Your task to perform on an android device: add a contact in the contacts app Image 0: 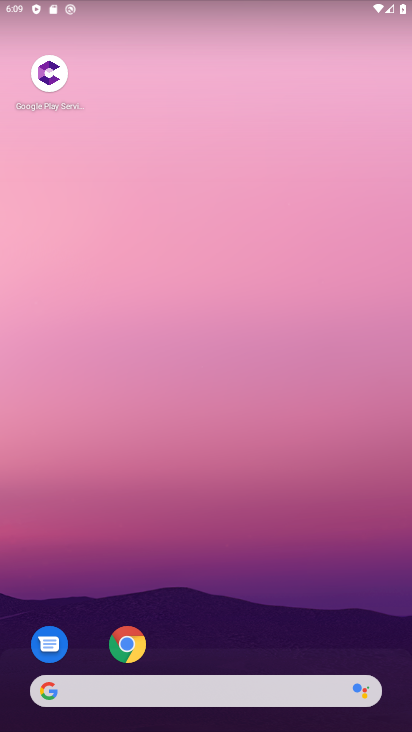
Step 0: drag from (269, 643) to (368, 192)
Your task to perform on an android device: add a contact in the contacts app Image 1: 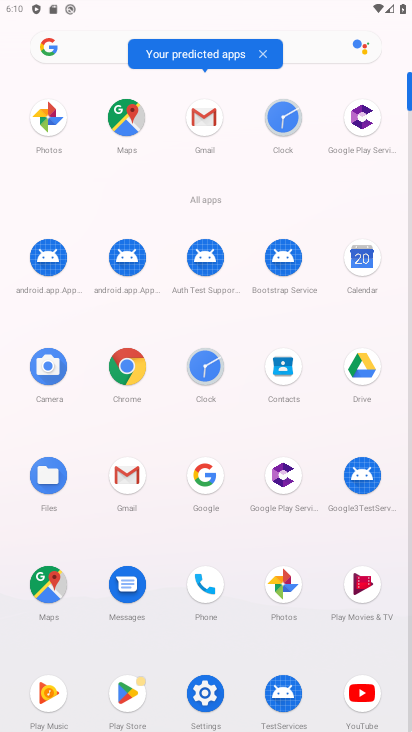
Step 1: click (284, 365)
Your task to perform on an android device: add a contact in the contacts app Image 2: 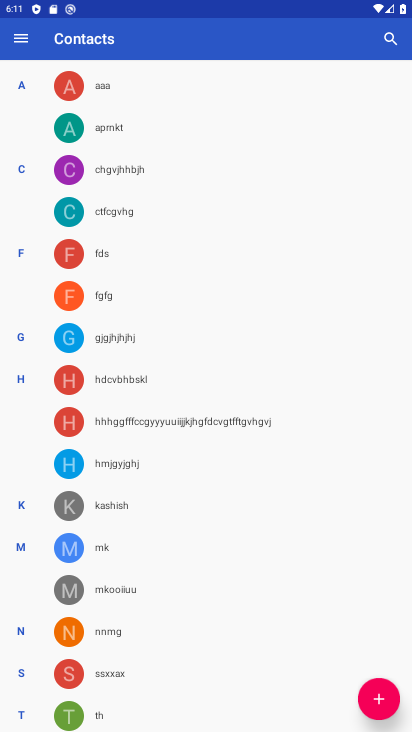
Step 2: click (282, 365)
Your task to perform on an android device: add a contact in the contacts app Image 3: 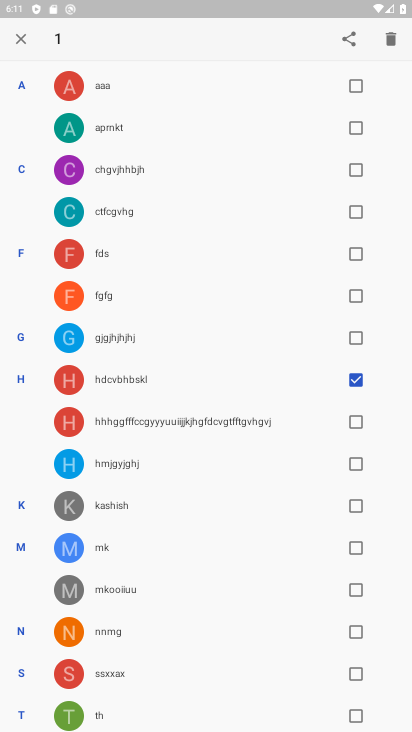
Step 3: click (14, 45)
Your task to perform on an android device: add a contact in the contacts app Image 4: 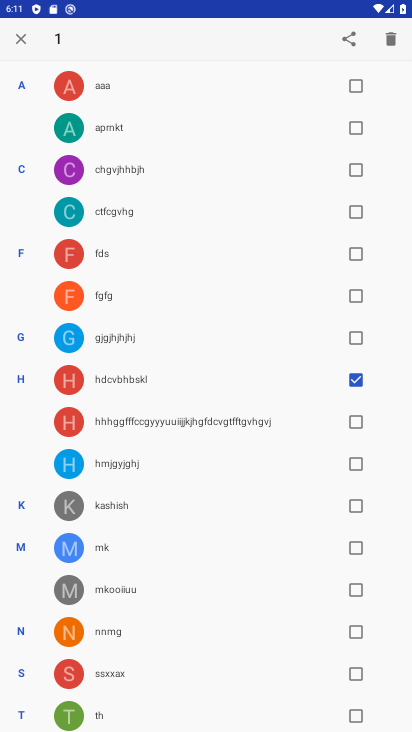
Step 4: click (22, 41)
Your task to perform on an android device: add a contact in the contacts app Image 5: 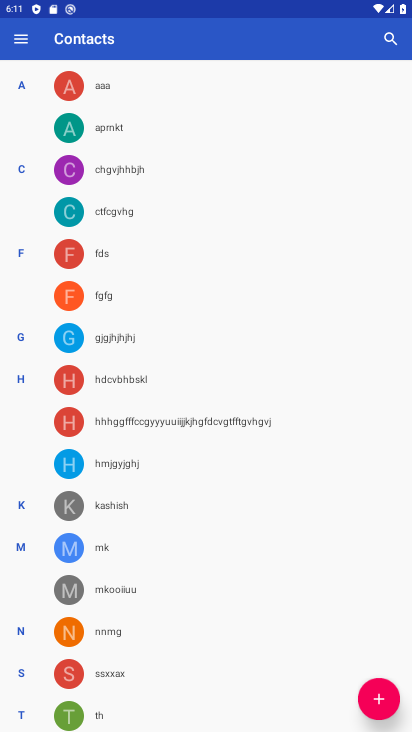
Step 5: click (381, 698)
Your task to perform on an android device: add a contact in the contacts app Image 6: 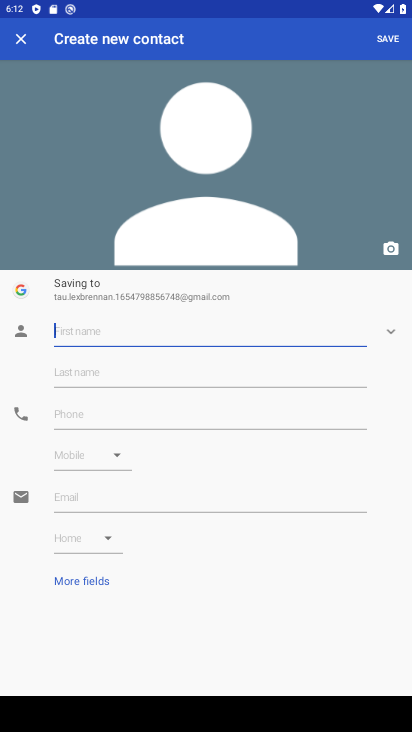
Step 6: type "kjkjkjk"
Your task to perform on an android device: add a contact in the contacts app Image 7: 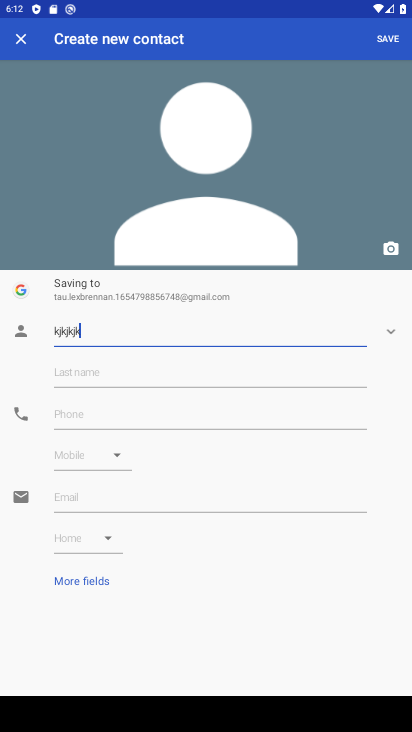
Step 7: click (193, 404)
Your task to perform on an android device: add a contact in the contacts app Image 8: 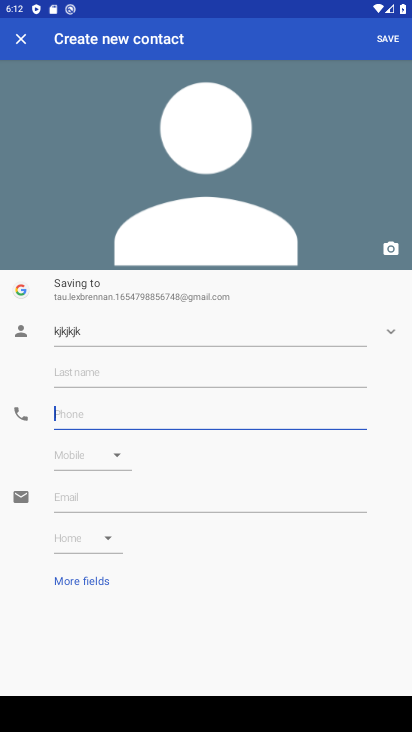
Step 8: type "78887"
Your task to perform on an android device: add a contact in the contacts app Image 9: 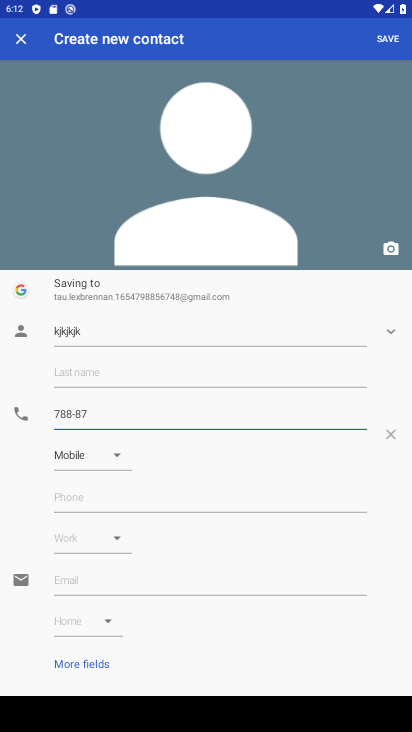
Step 9: click (392, 30)
Your task to perform on an android device: add a contact in the contacts app Image 10: 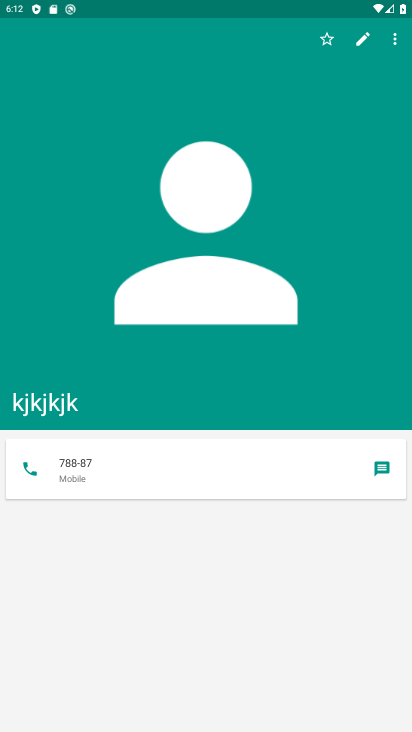
Step 10: task complete